Your task to perform on an android device: toggle wifi Image 0: 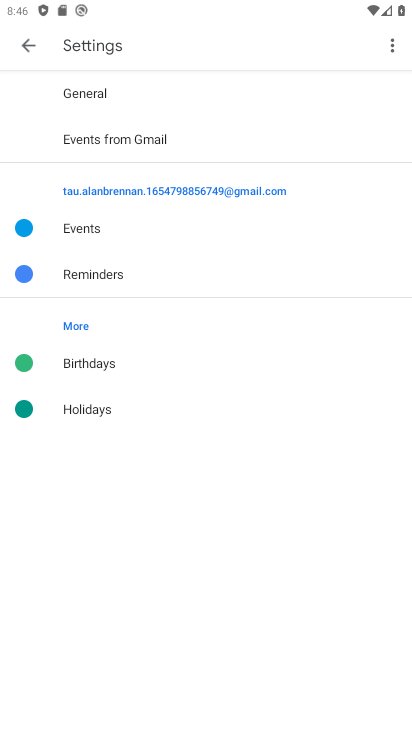
Step 0: press home button
Your task to perform on an android device: toggle wifi Image 1: 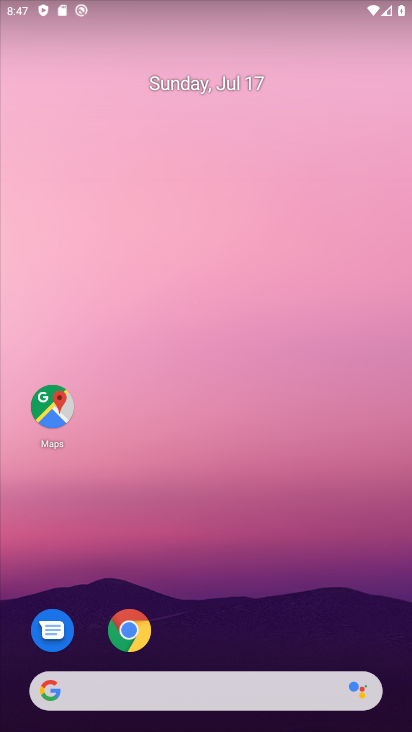
Step 1: drag from (233, 626) to (226, 251)
Your task to perform on an android device: toggle wifi Image 2: 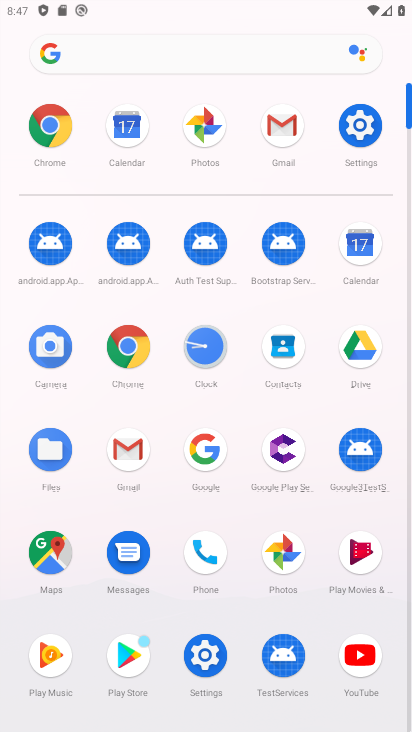
Step 2: click (217, 679)
Your task to perform on an android device: toggle wifi Image 3: 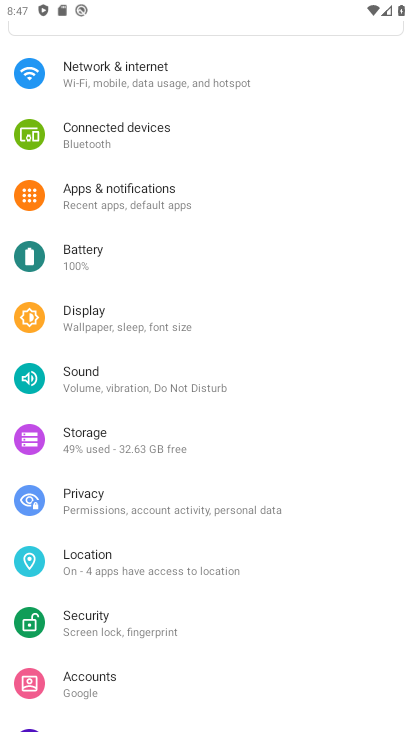
Step 3: click (135, 101)
Your task to perform on an android device: toggle wifi Image 4: 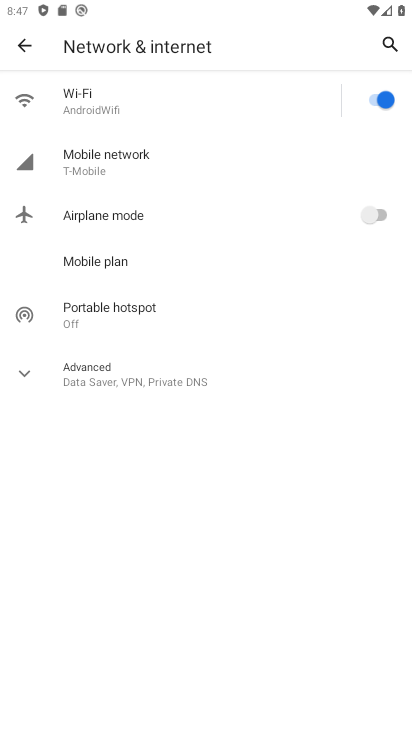
Step 4: task complete